Your task to perform on an android device: Open Yahoo.com Image 0: 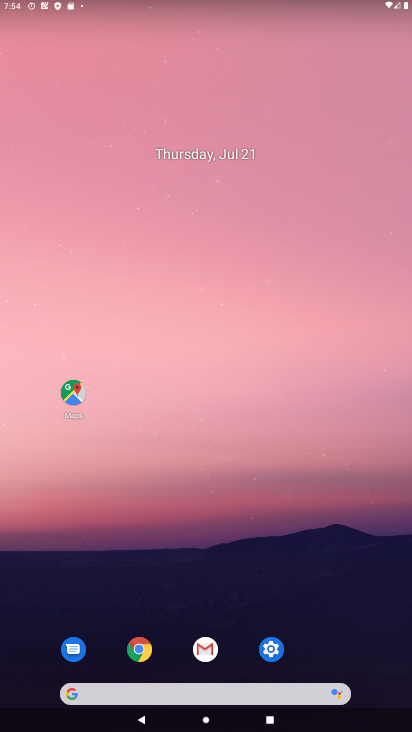
Step 0: click (146, 659)
Your task to perform on an android device: Open Yahoo.com Image 1: 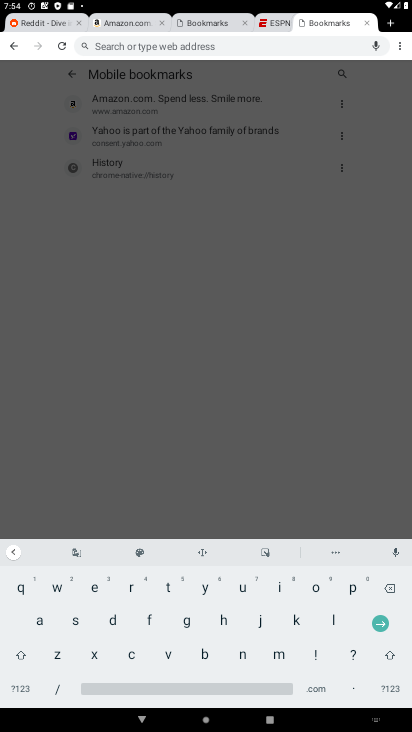
Step 1: click (200, 588)
Your task to perform on an android device: Open Yahoo.com Image 2: 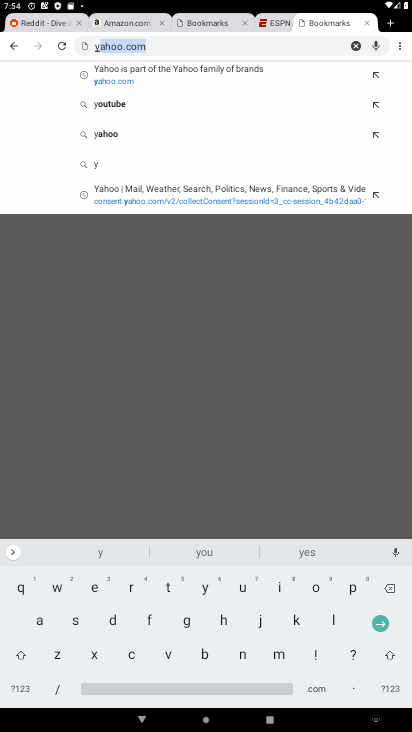
Step 2: click (177, 46)
Your task to perform on an android device: Open Yahoo.com Image 3: 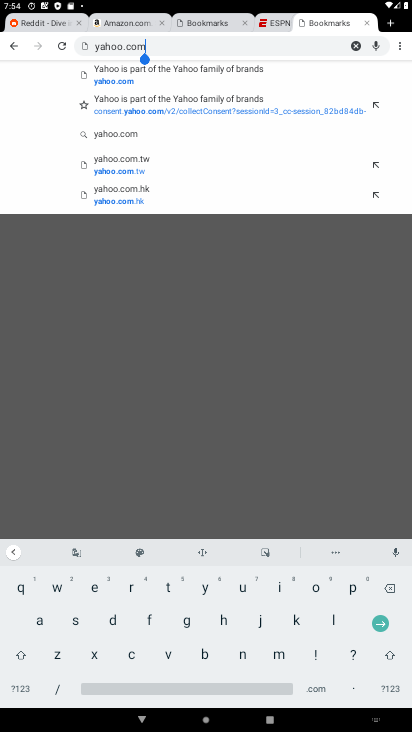
Step 3: click (384, 626)
Your task to perform on an android device: Open Yahoo.com Image 4: 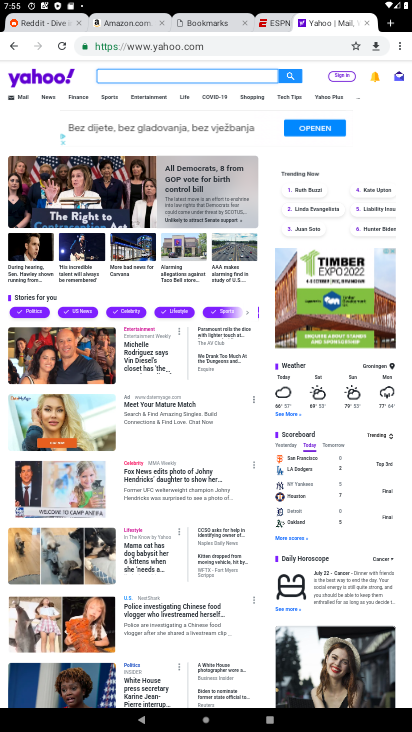
Step 4: task complete